Your task to perform on an android device: turn vacation reply on in the gmail app Image 0: 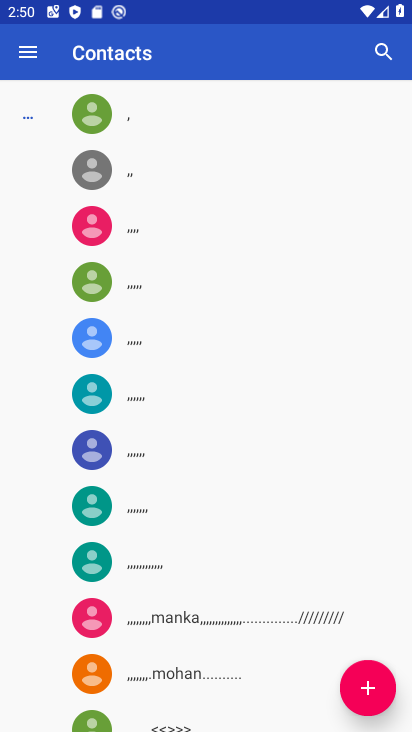
Step 0: press home button
Your task to perform on an android device: turn vacation reply on in the gmail app Image 1: 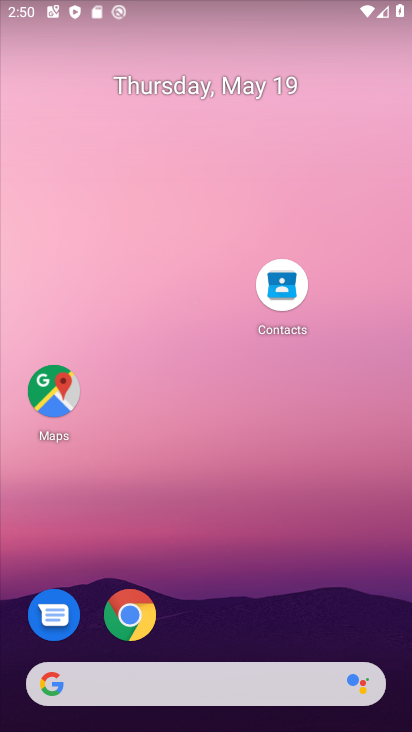
Step 1: drag from (240, 637) to (285, 155)
Your task to perform on an android device: turn vacation reply on in the gmail app Image 2: 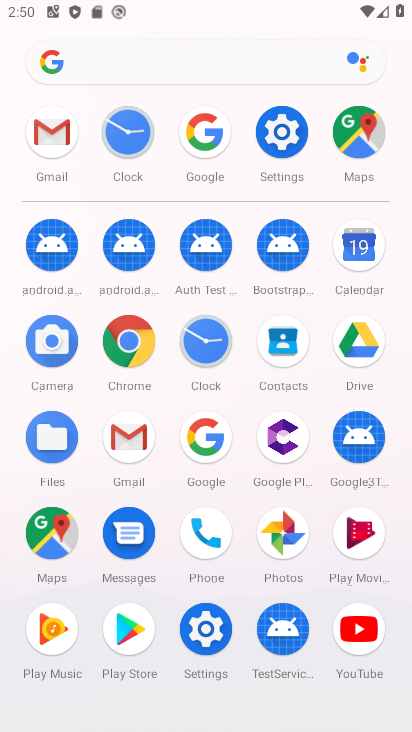
Step 2: click (134, 452)
Your task to perform on an android device: turn vacation reply on in the gmail app Image 3: 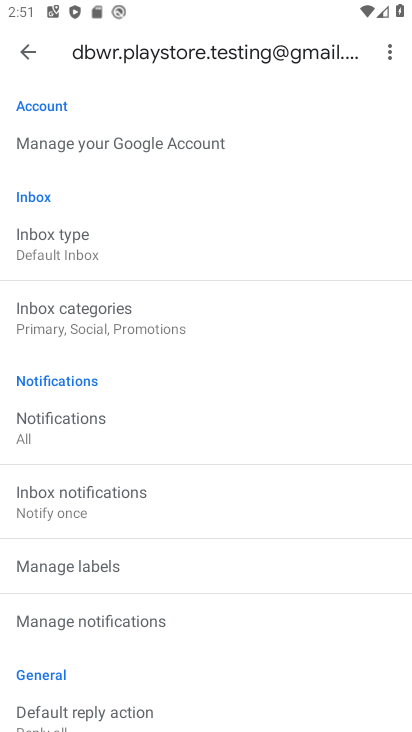
Step 3: drag from (177, 536) to (260, 72)
Your task to perform on an android device: turn vacation reply on in the gmail app Image 4: 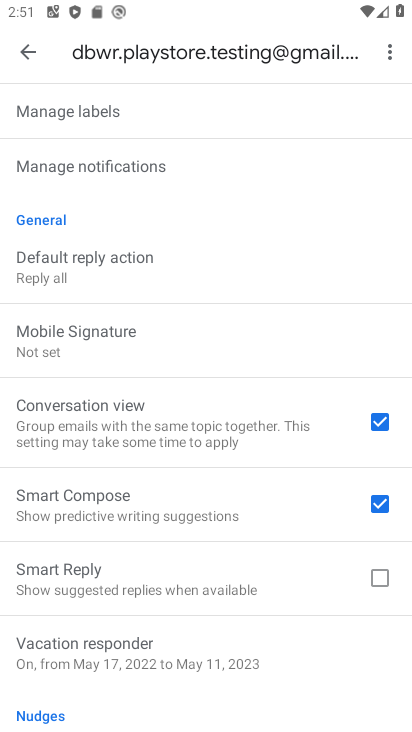
Step 4: click (113, 655)
Your task to perform on an android device: turn vacation reply on in the gmail app Image 5: 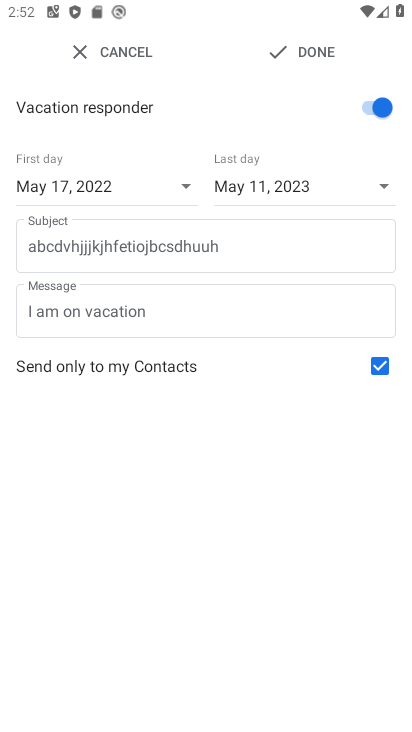
Step 5: task complete